Your task to perform on an android device: toggle airplane mode Image 0: 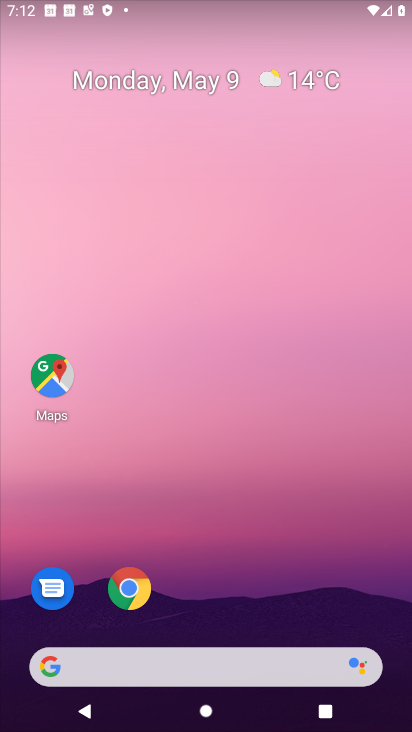
Step 0: drag from (334, 610) to (279, 147)
Your task to perform on an android device: toggle airplane mode Image 1: 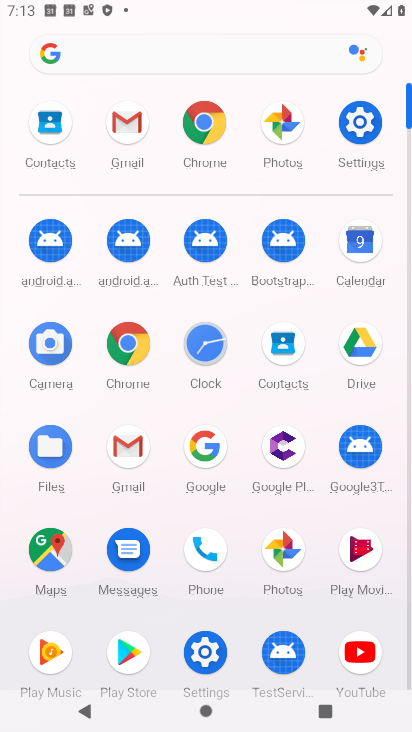
Step 1: drag from (275, 1) to (249, 643)
Your task to perform on an android device: toggle airplane mode Image 2: 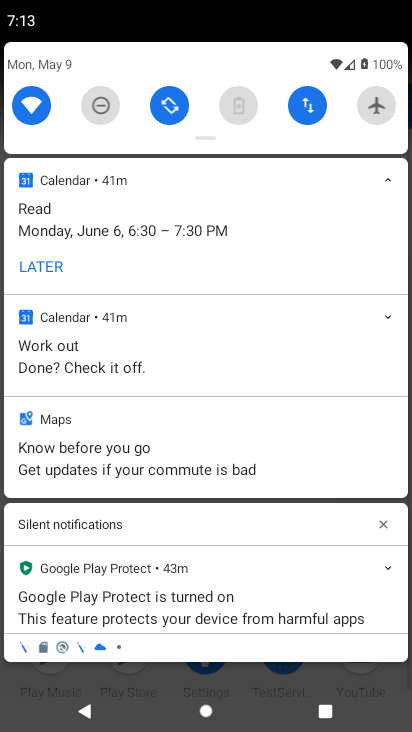
Step 2: click (355, 103)
Your task to perform on an android device: toggle airplane mode Image 3: 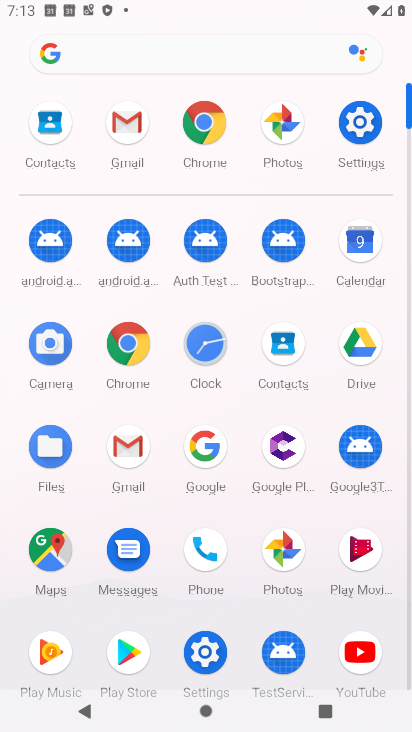
Step 3: drag from (266, 3) to (257, 730)
Your task to perform on an android device: toggle airplane mode Image 4: 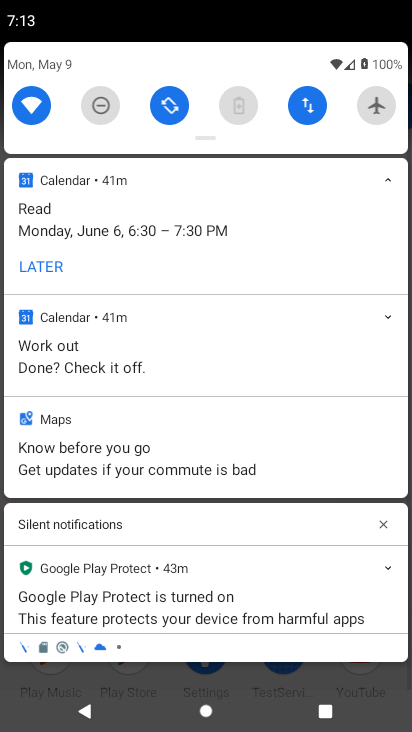
Step 4: click (376, 115)
Your task to perform on an android device: toggle airplane mode Image 5: 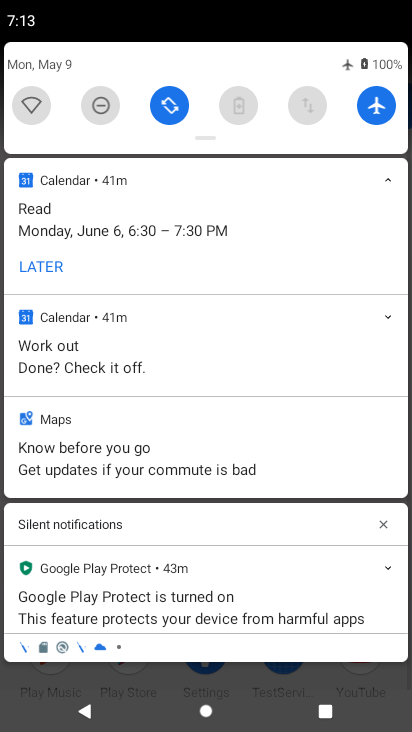
Step 5: task complete